Your task to perform on an android device: toggle airplane mode Image 0: 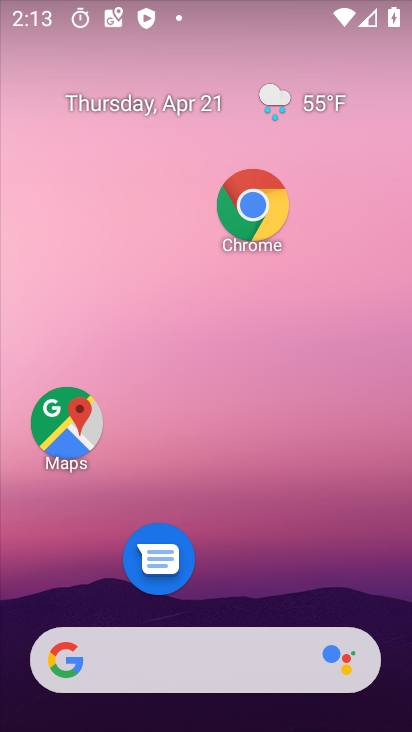
Step 0: drag from (204, 631) to (370, 43)
Your task to perform on an android device: toggle airplane mode Image 1: 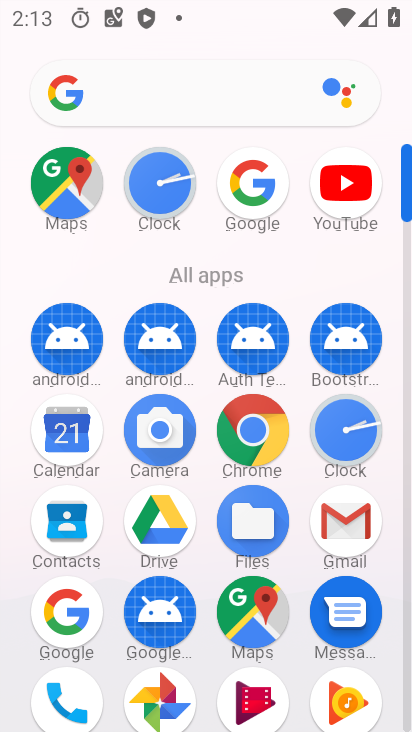
Step 1: drag from (198, 565) to (170, 34)
Your task to perform on an android device: toggle airplane mode Image 2: 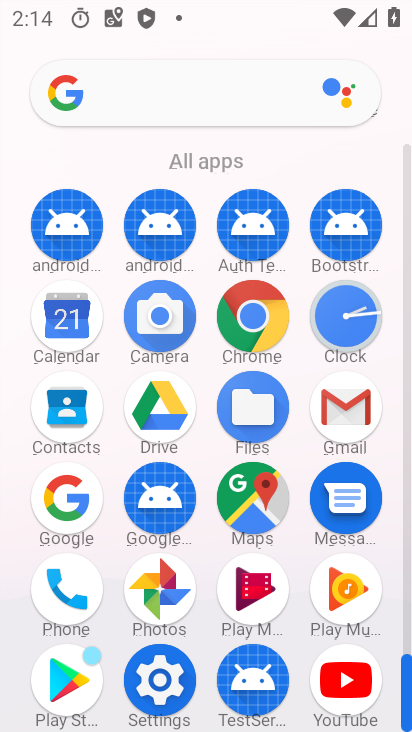
Step 2: click (163, 661)
Your task to perform on an android device: toggle airplane mode Image 3: 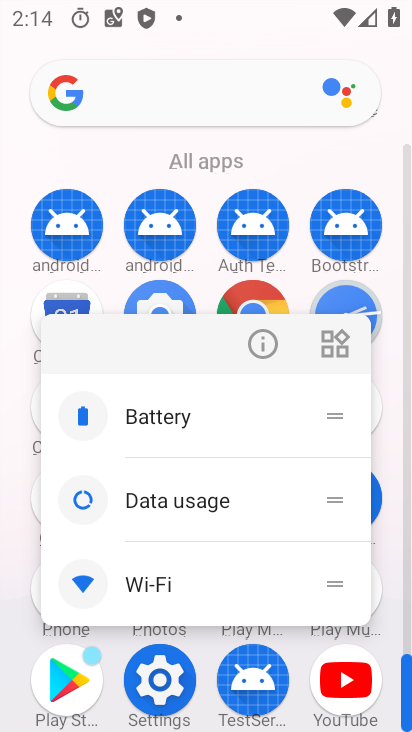
Step 3: click (166, 684)
Your task to perform on an android device: toggle airplane mode Image 4: 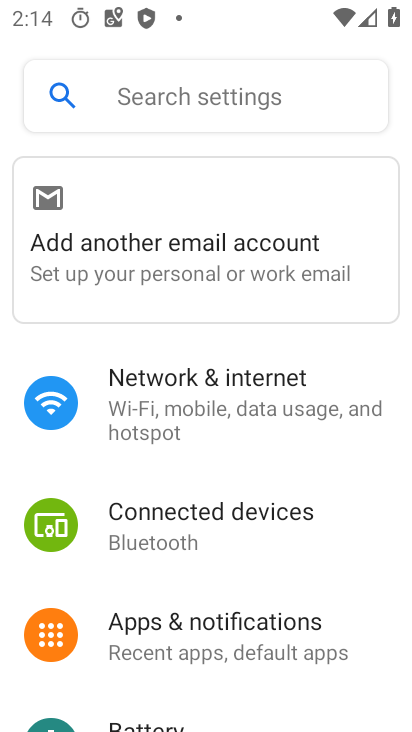
Step 4: click (189, 385)
Your task to perform on an android device: toggle airplane mode Image 5: 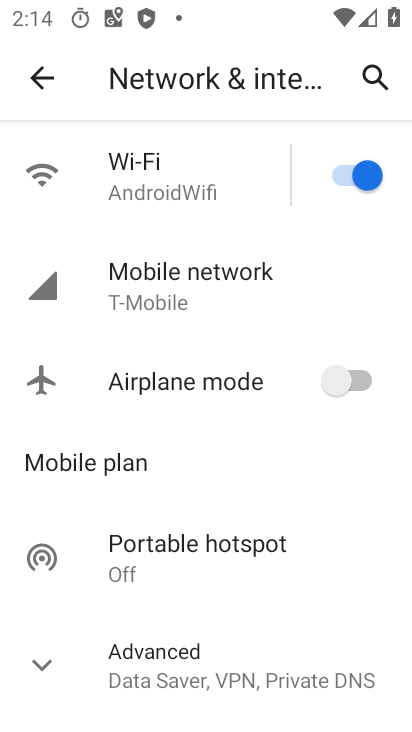
Step 5: click (223, 406)
Your task to perform on an android device: toggle airplane mode Image 6: 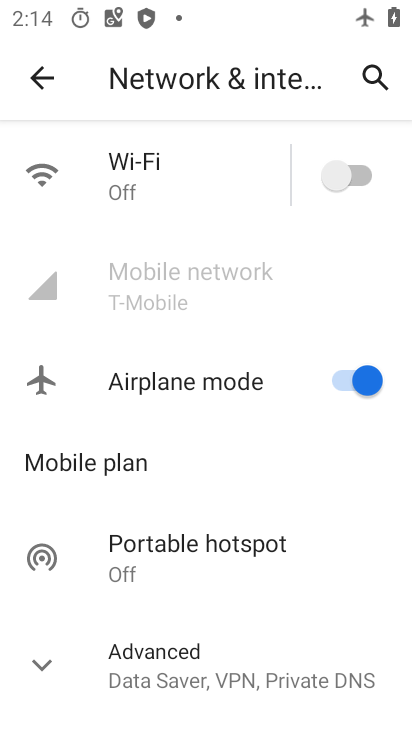
Step 6: task complete